Your task to perform on an android device: turn on javascript in the chrome app Image 0: 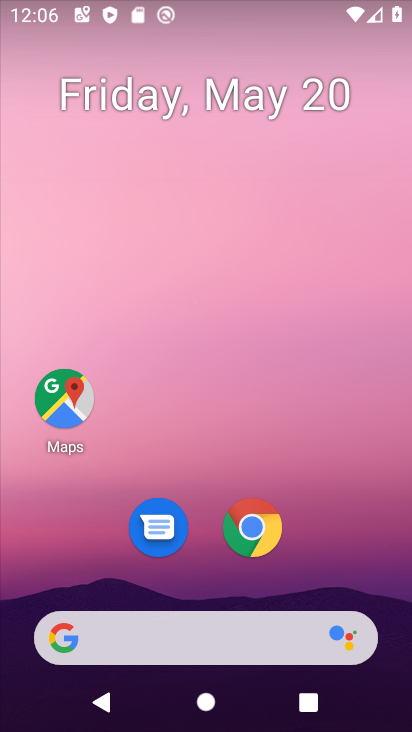
Step 0: press home button
Your task to perform on an android device: turn on javascript in the chrome app Image 1: 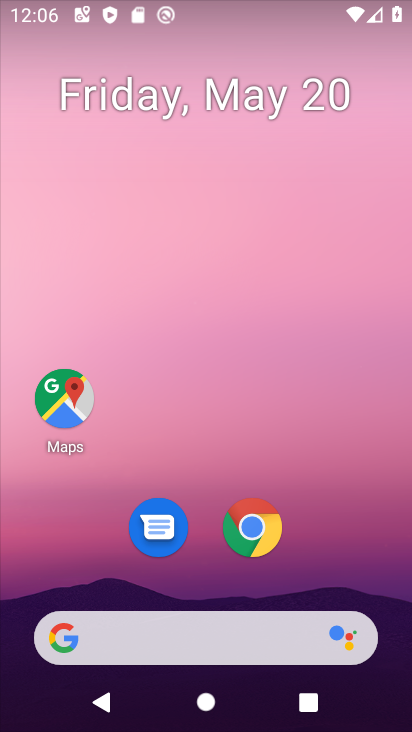
Step 1: click (280, 517)
Your task to perform on an android device: turn on javascript in the chrome app Image 2: 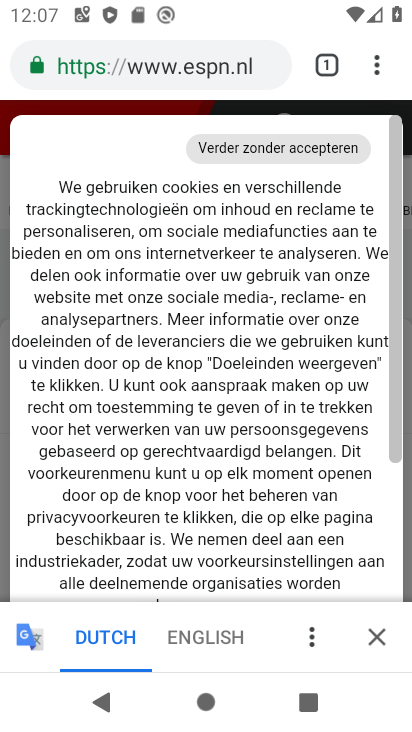
Step 2: drag from (390, 58) to (182, 558)
Your task to perform on an android device: turn on javascript in the chrome app Image 3: 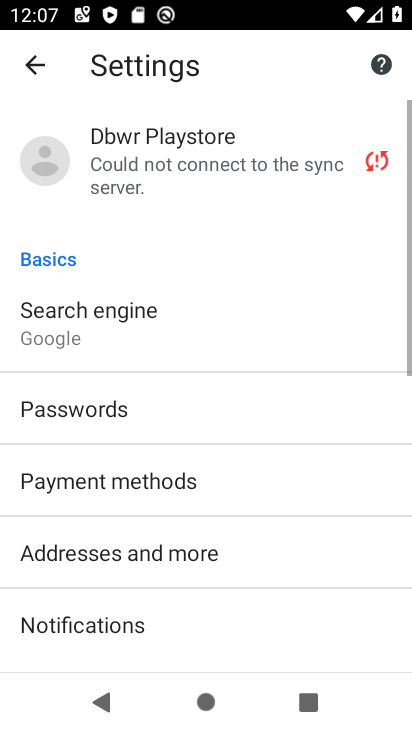
Step 3: drag from (184, 523) to (286, 141)
Your task to perform on an android device: turn on javascript in the chrome app Image 4: 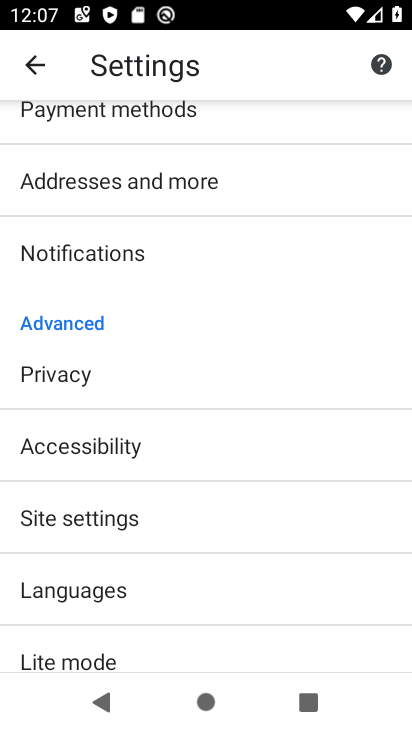
Step 4: click (155, 516)
Your task to perform on an android device: turn on javascript in the chrome app Image 5: 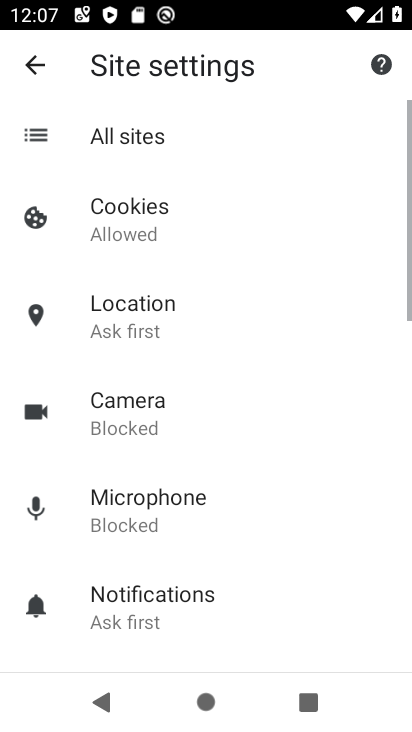
Step 5: drag from (184, 574) to (250, 203)
Your task to perform on an android device: turn on javascript in the chrome app Image 6: 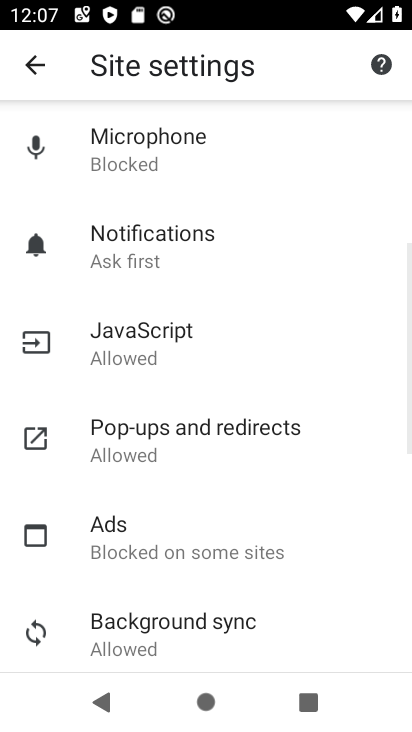
Step 6: click (143, 334)
Your task to perform on an android device: turn on javascript in the chrome app Image 7: 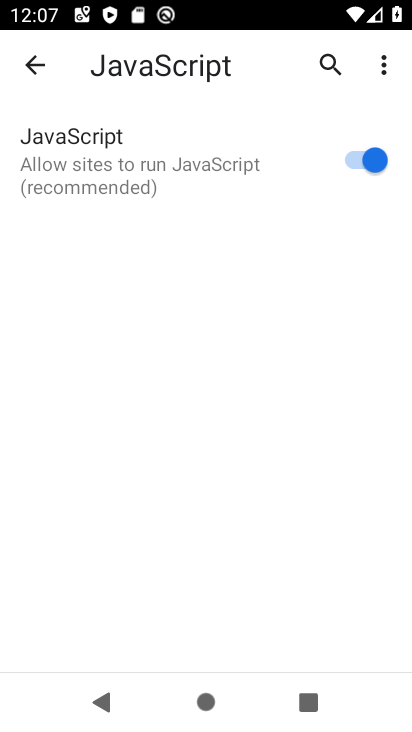
Step 7: task complete